Your task to perform on an android device: What is the news today? Image 0: 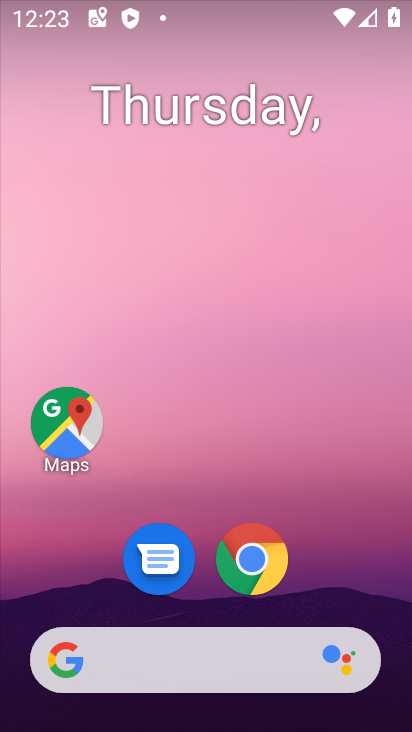
Step 0: drag from (338, 608) to (301, 163)
Your task to perform on an android device: What is the news today? Image 1: 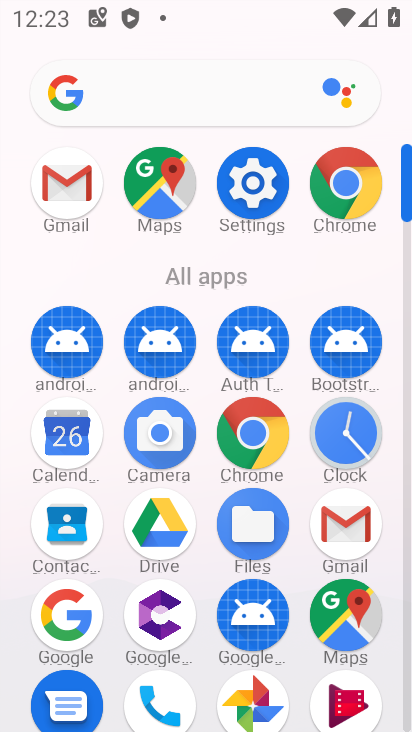
Step 1: task complete